Your task to perform on an android device: What is the news today? Image 0: 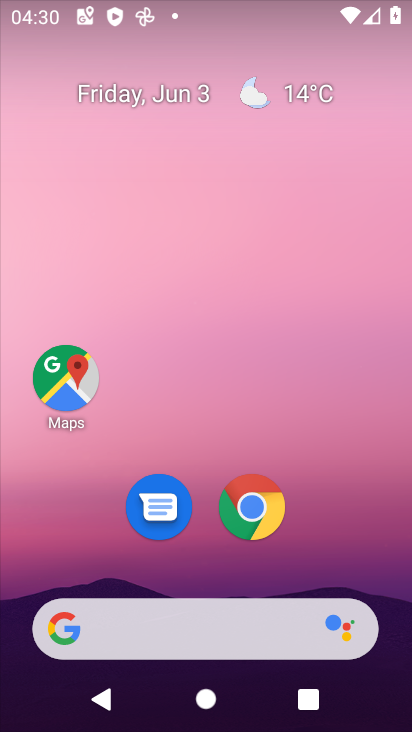
Step 0: click (262, 631)
Your task to perform on an android device: What is the news today? Image 1: 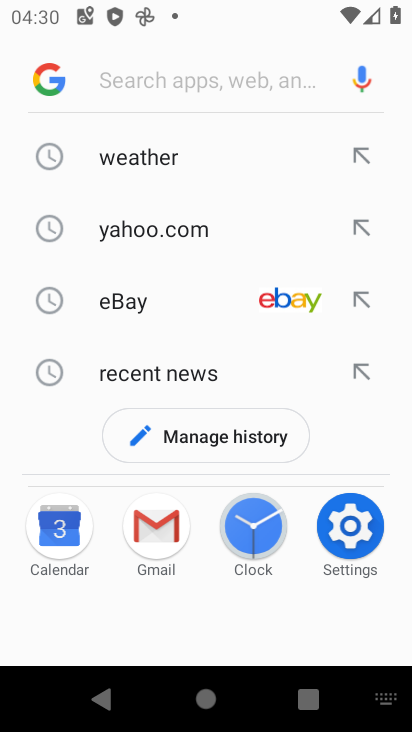
Step 1: type "news today?"
Your task to perform on an android device: What is the news today? Image 2: 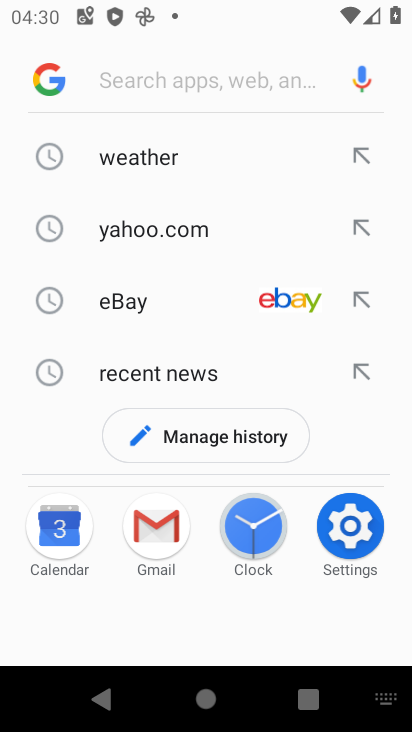
Step 2: click (172, 77)
Your task to perform on an android device: What is the news today? Image 3: 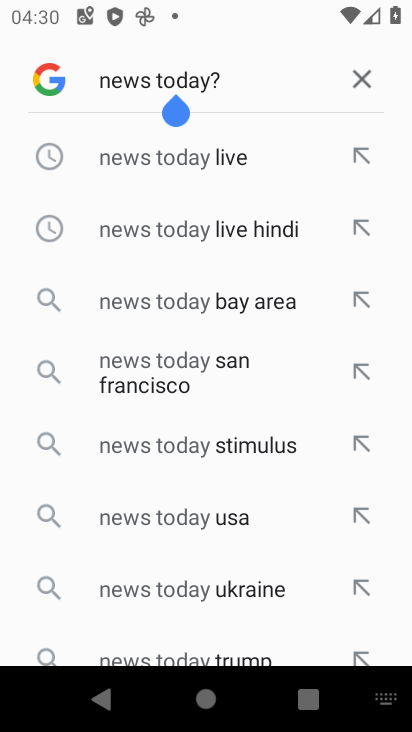
Step 3: click (174, 147)
Your task to perform on an android device: What is the news today? Image 4: 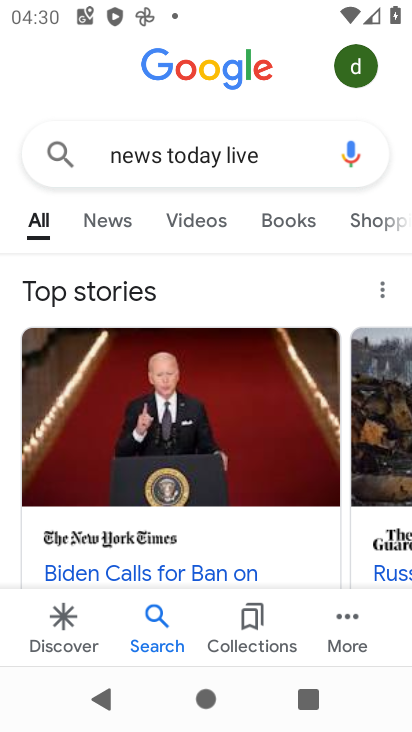
Step 4: click (292, 48)
Your task to perform on an android device: What is the news today? Image 5: 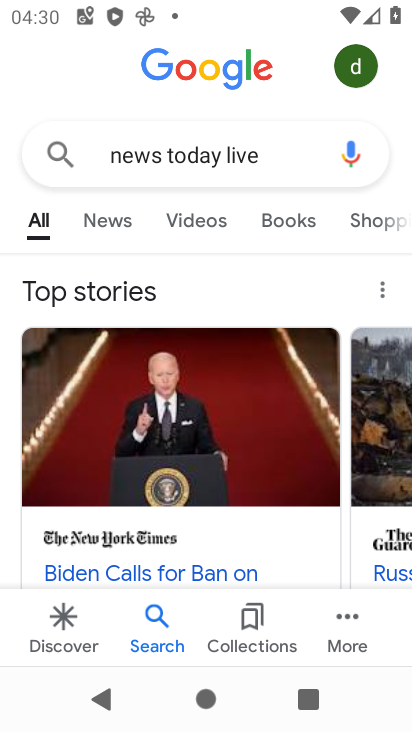
Step 5: task complete